Your task to perform on an android device: toggle show notifications on the lock screen Image 0: 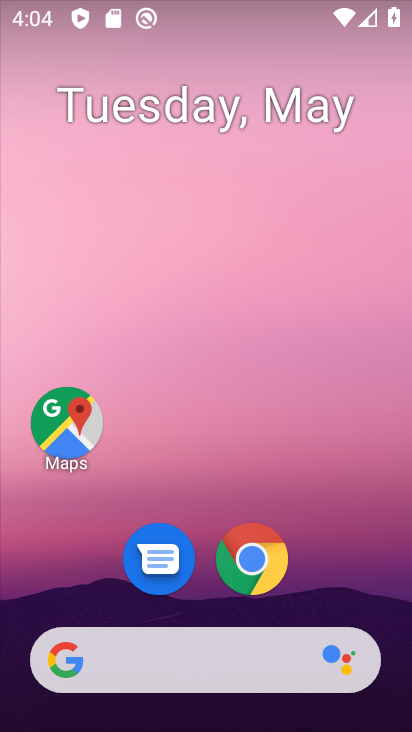
Step 0: drag from (356, 605) to (312, 126)
Your task to perform on an android device: toggle show notifications on the lock screen Image 1: 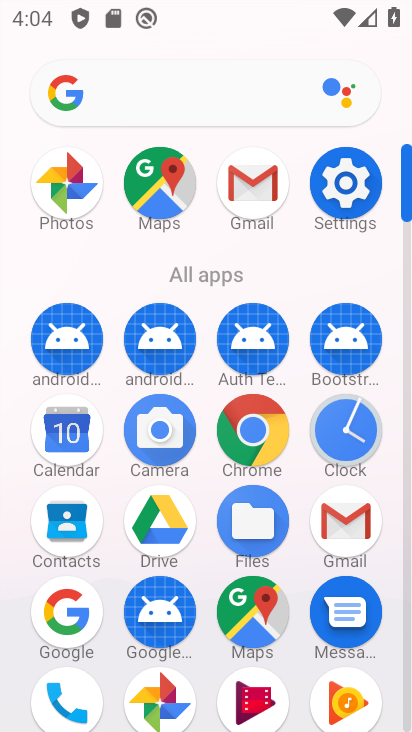
Step 1: click (344, 174)
Your task to perform on an android device: toggle show notifications on the lock screen Image 2: 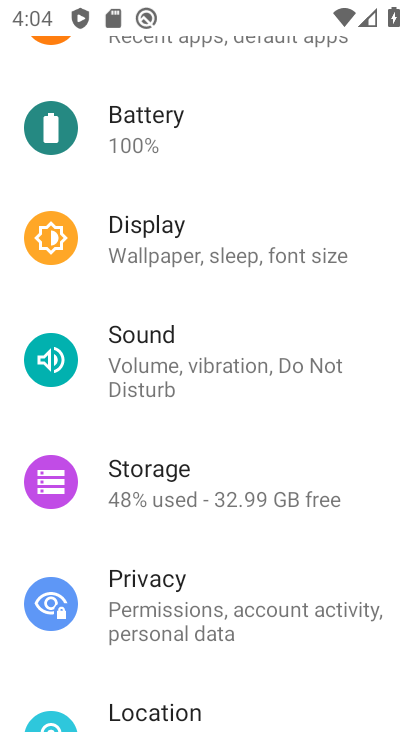
Step 2: drag from (196, 117) to (224, 497)
Your task to perform on an android device: toggle show notifications on the lock screen Image 3: 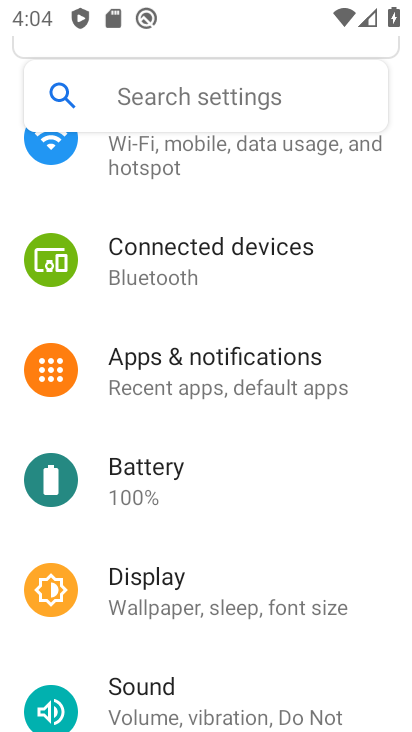
Step 3: click (203, 389)
Your task to perform on an android device: toggle show notifications on the lock screen Image 4: 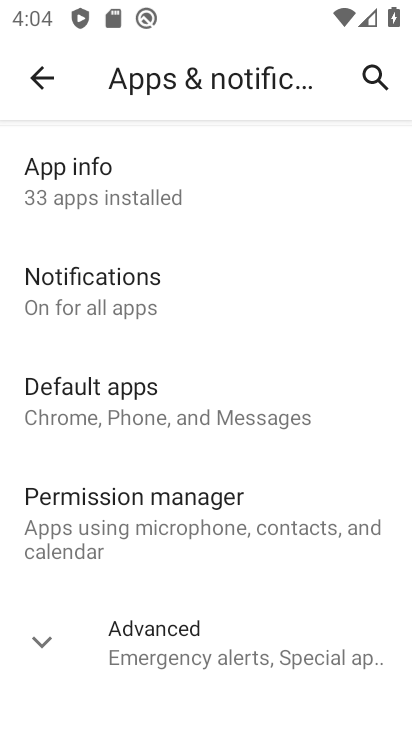
Step 4: click (176, 297)
Your task to perform on an android device: toggle show notifications on the lock screen Image 5: 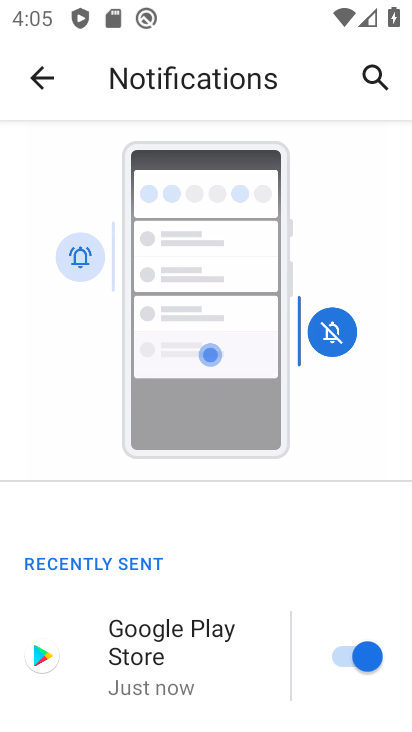
Step 5: drag from (189, 628) to (249, 189)
Your task to perform on an android device: toggle show notifications on the lock screen Image 6: 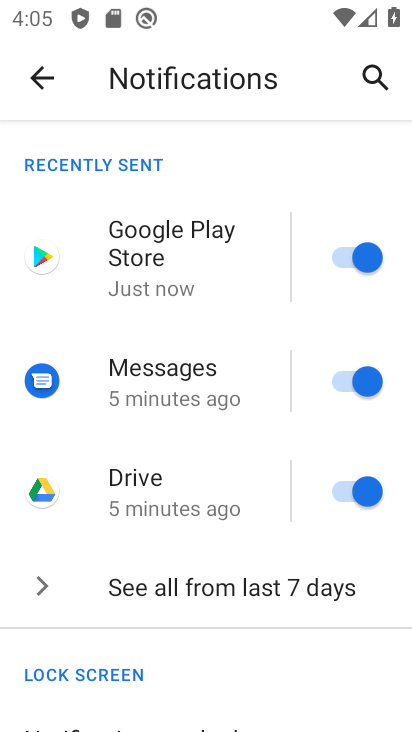
Step 6: drag from (219, 653) to (244, 267)
Your task to perform on an android device: toggle show notifications on the lock screen Image 7: 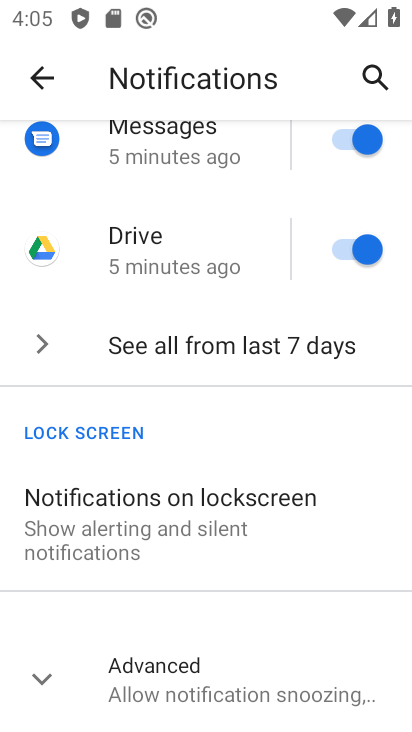
Step 7: click (216, 548)
Your task to perform on an android device: toggle show notifications on the lock screen Image 8: 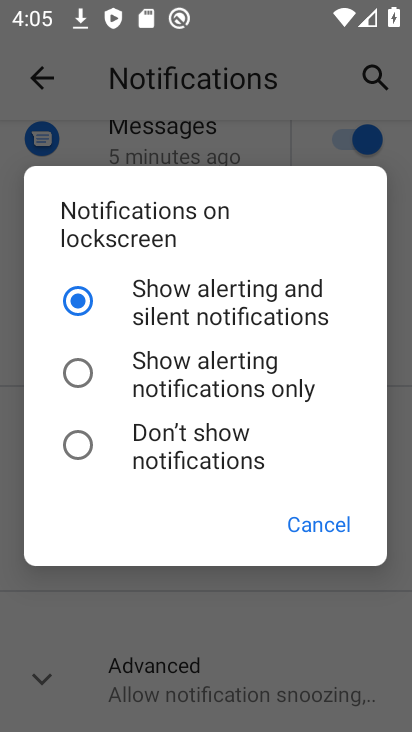
Step 8: click (193, 467)
Your task to perform on an android device: toggle show notifications on the lock screen Image 9: 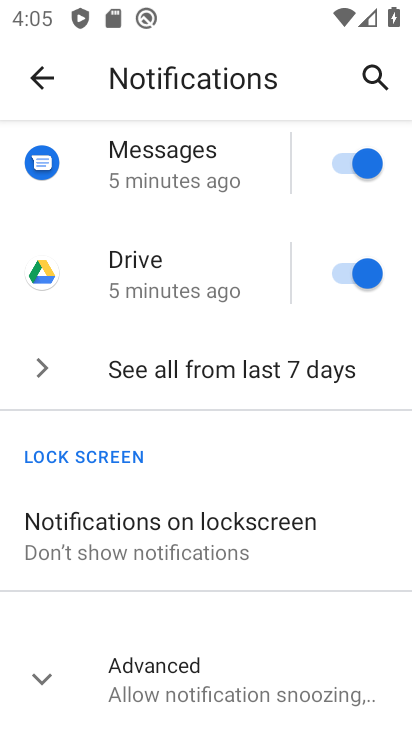
Step 9: task complete